Your task to perform on an android device: Open the stopwatch Image 0: 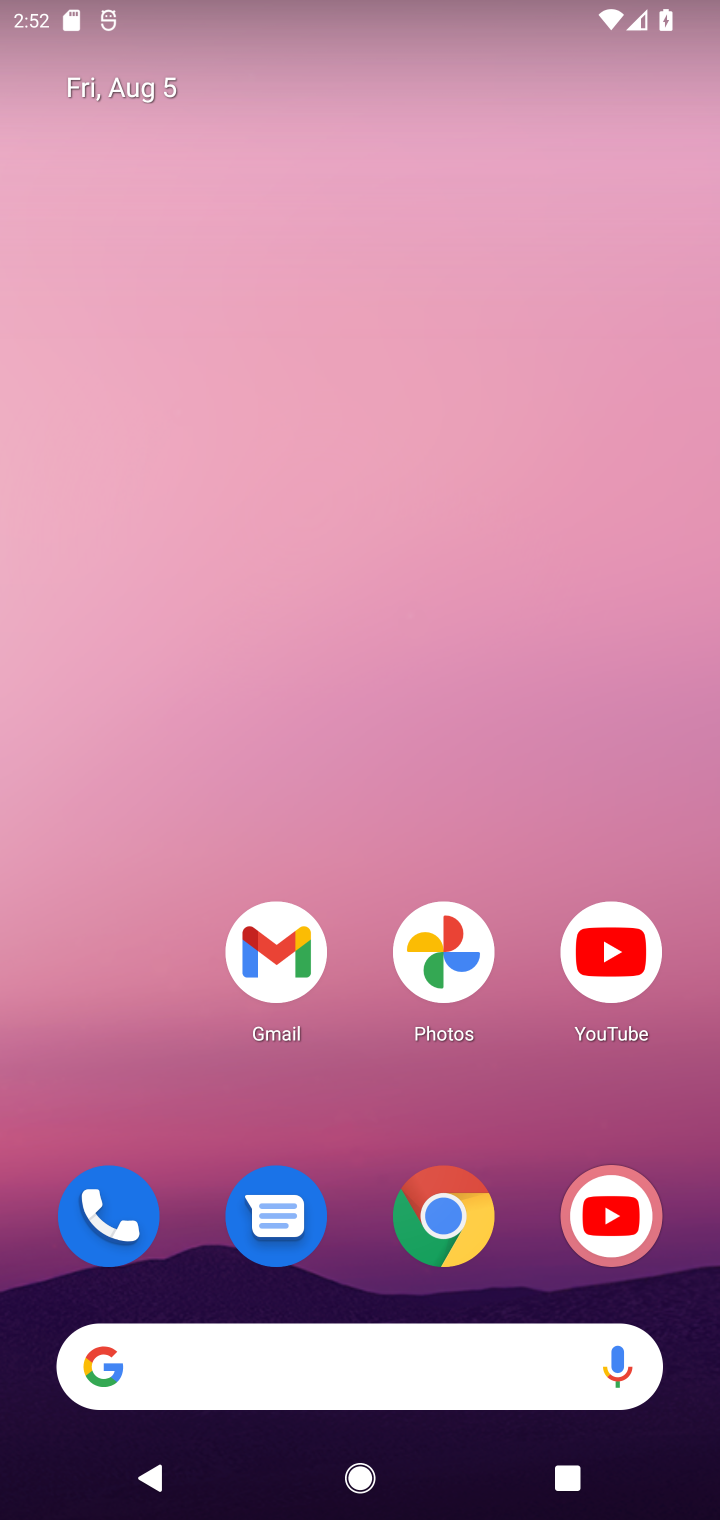
Step 0: drag from (166, 1060) to (299, 360)
Your task to perform on an android device: Open the stopwatch Image 1: 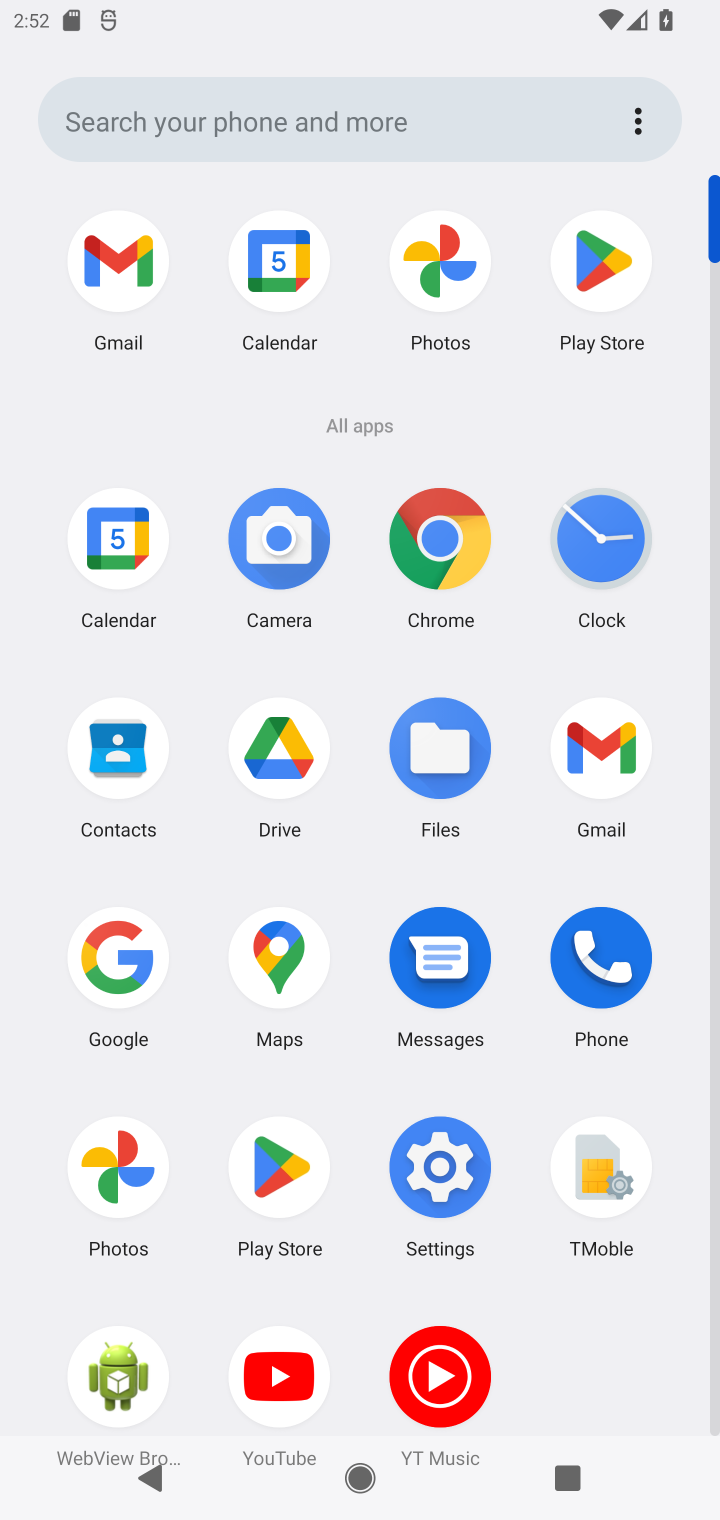
Step 1: click (585, 550)
Your task to perform on an android device: Open the stopwatch Image 2: 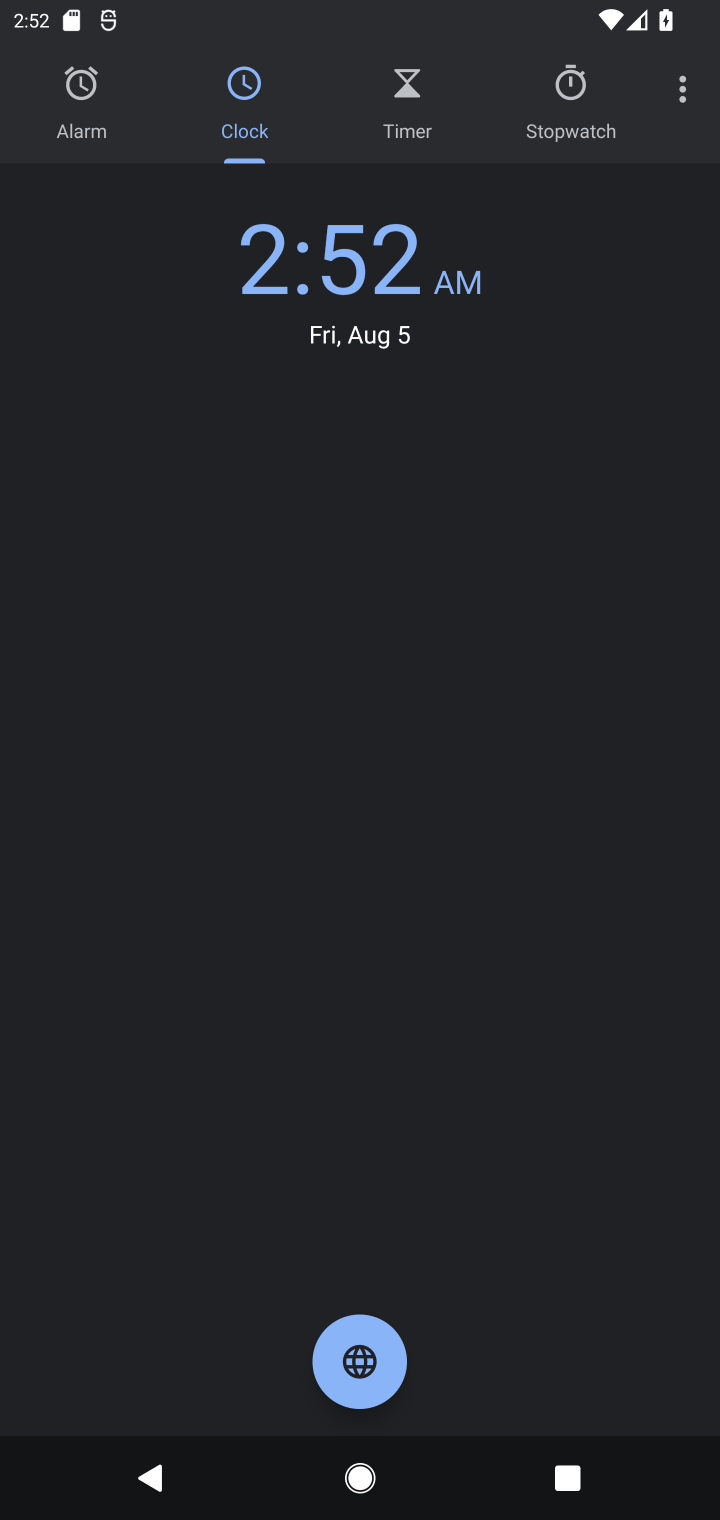
Step 2: click (553, 97)
Your task to perform on an android device: Open the stopwatch Image 3: 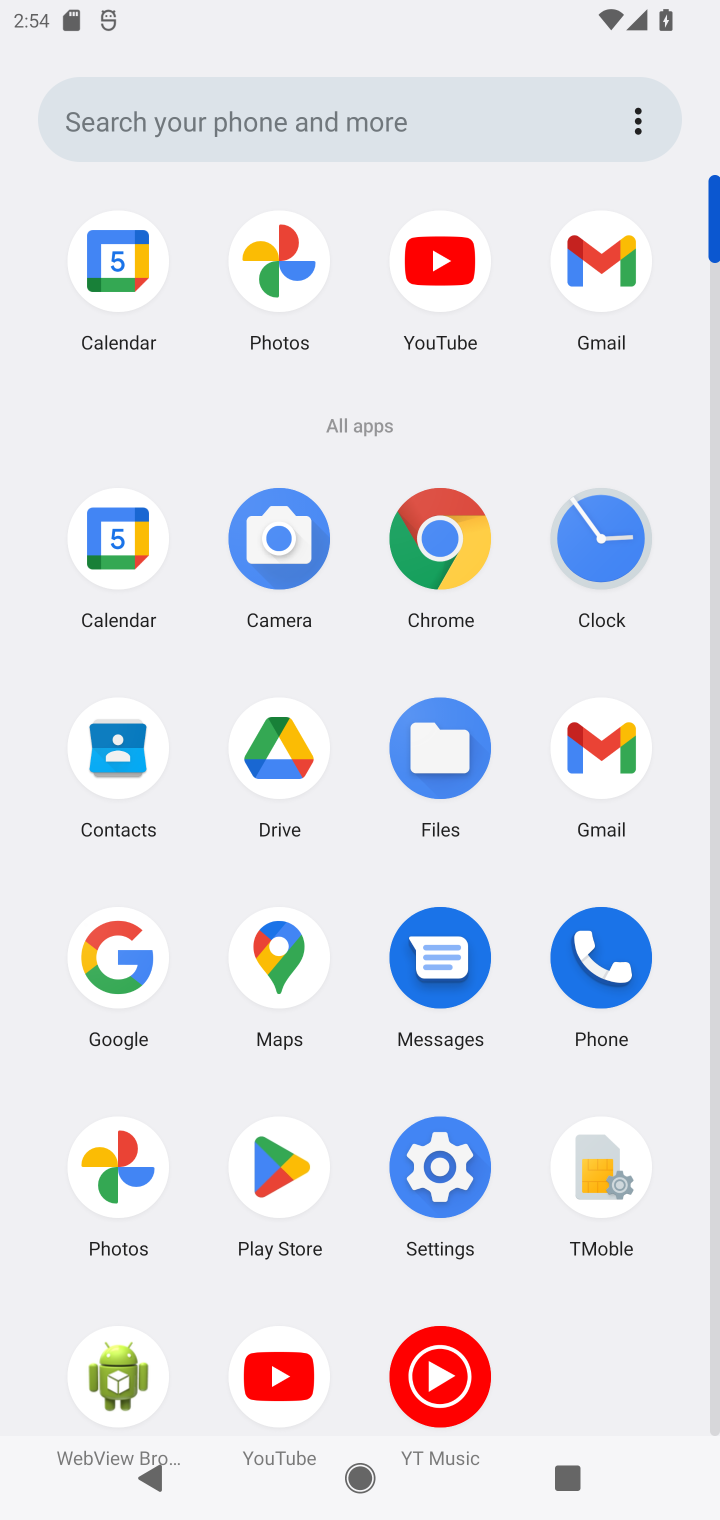
Step 3: task complete